Your task to perform on an android device: Search for Mexican restaurants on Maps Image 0: 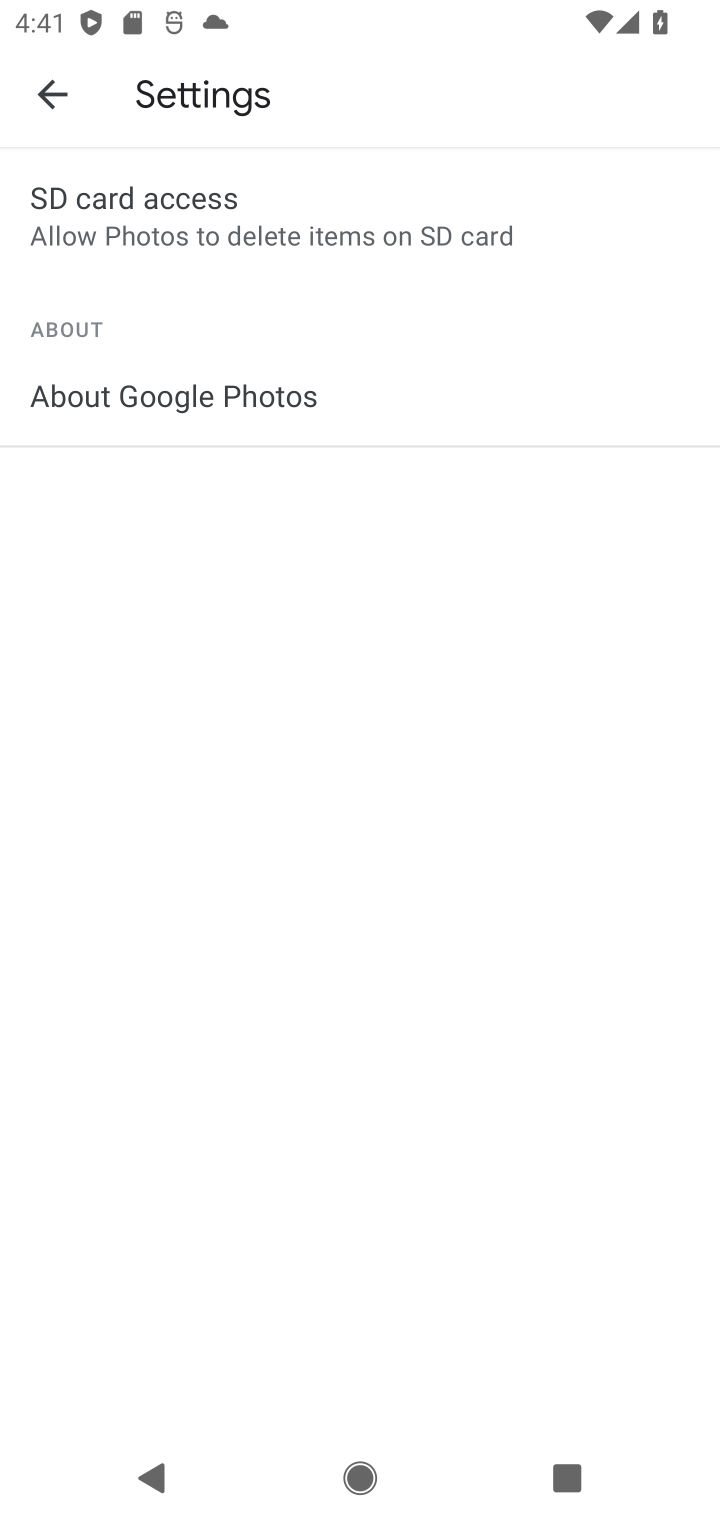
Step 0: press home button
Your task to perform on an android device: Search for Mexican restaurants on Maps Image 1: 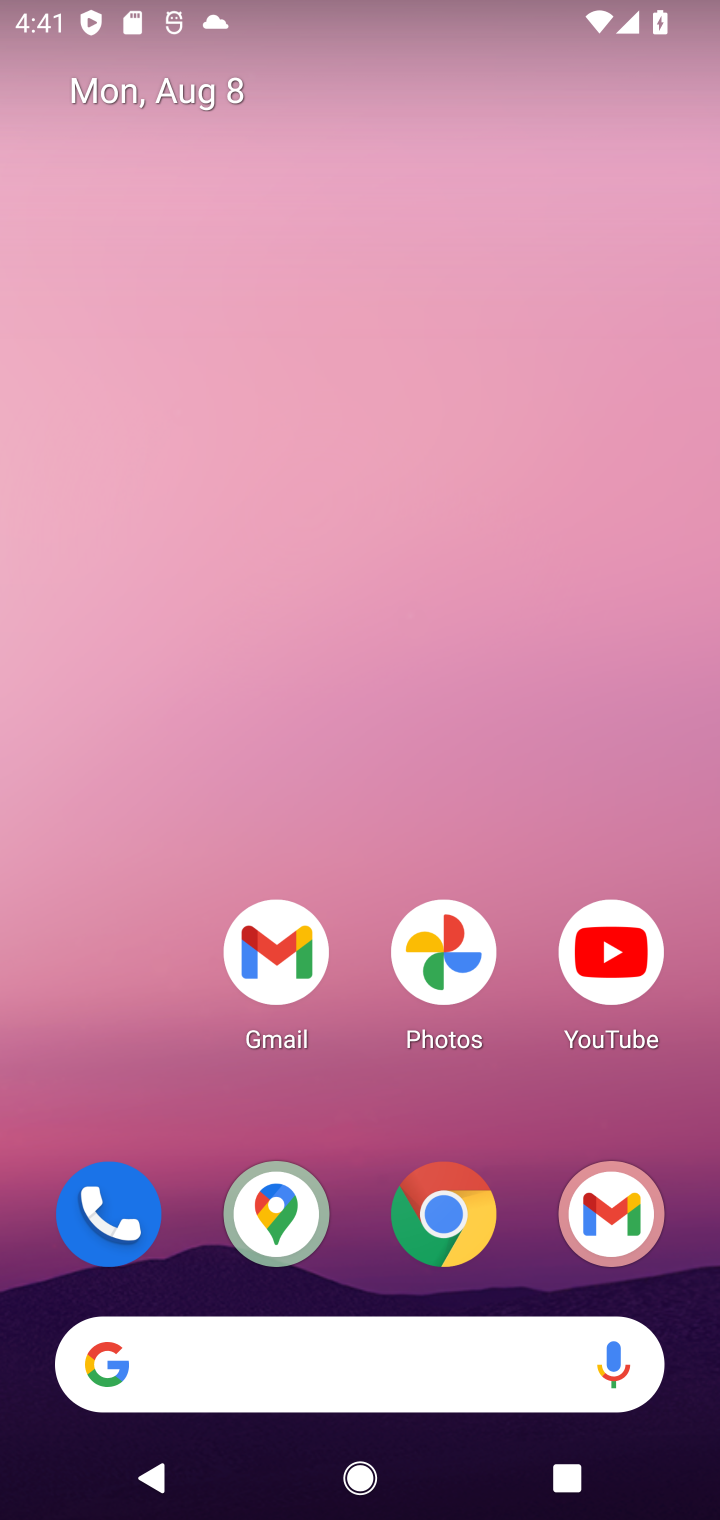
Step 1: drag from (359, 1257) to (359, 314)
Your task to perform on an android device: Search for Mexican restaurants on Maps Image 2: 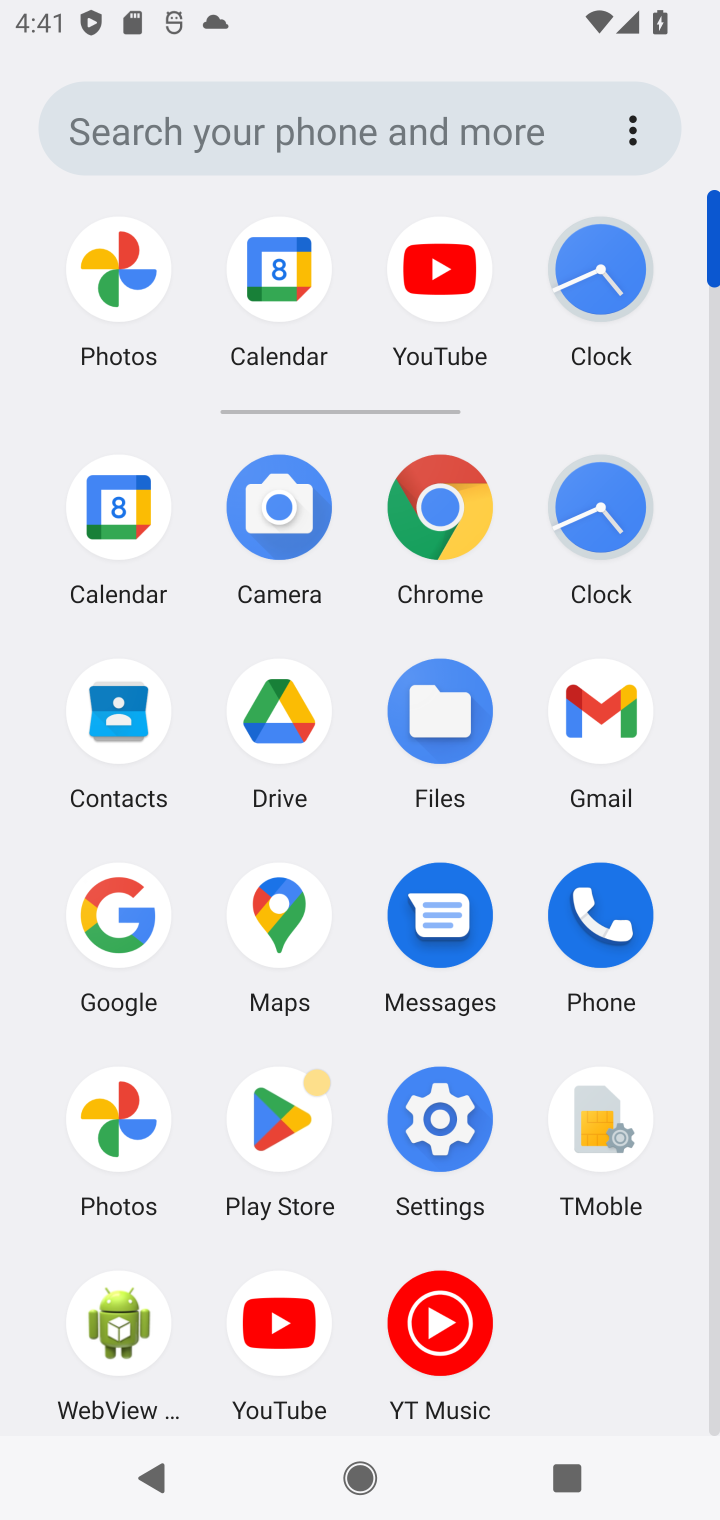
Step 2: click (274, 907)
Your task to perform on an android device: Search for Mexican restaurants on Maps Image 3: 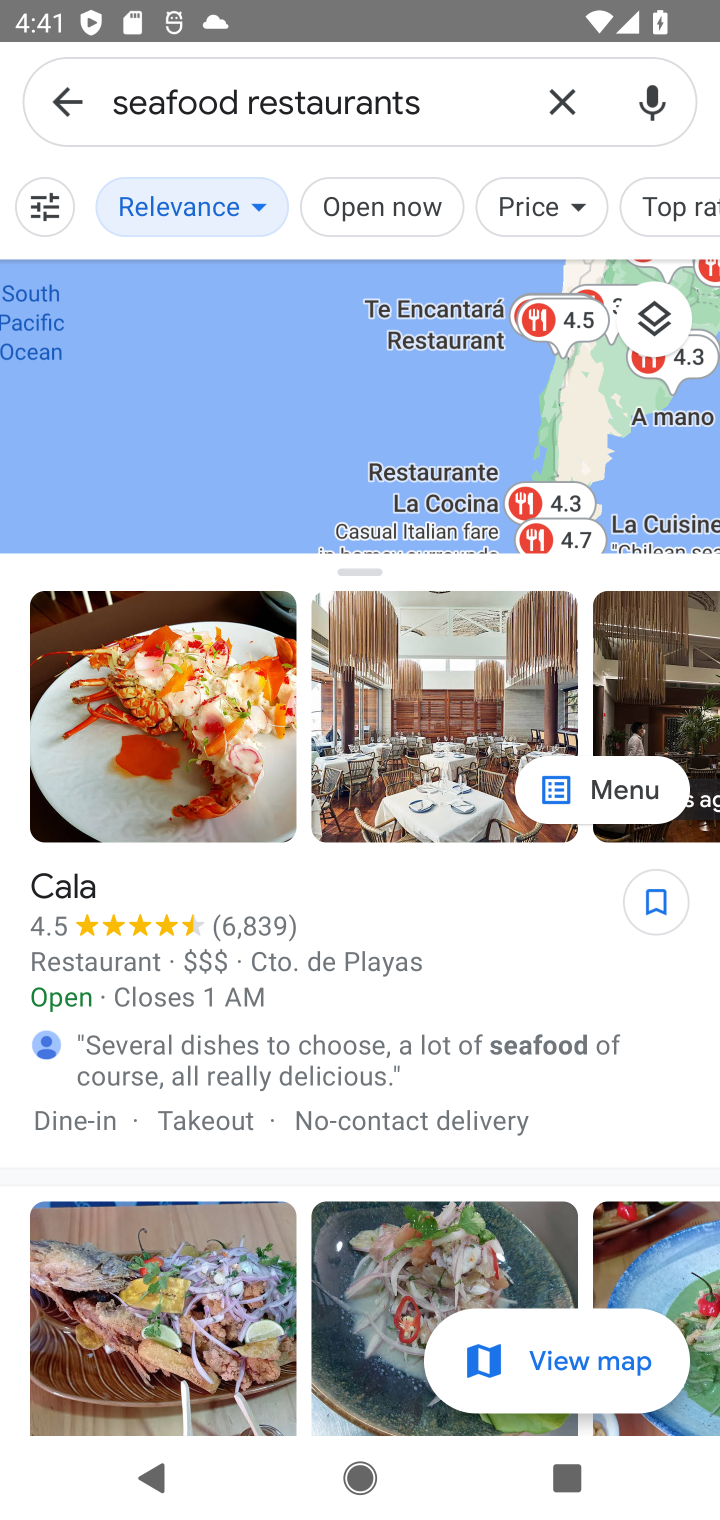
Step 3: click (561, 94)
Your task to perform on an android device: Search for Mexican restaurants on Maps Image 4: 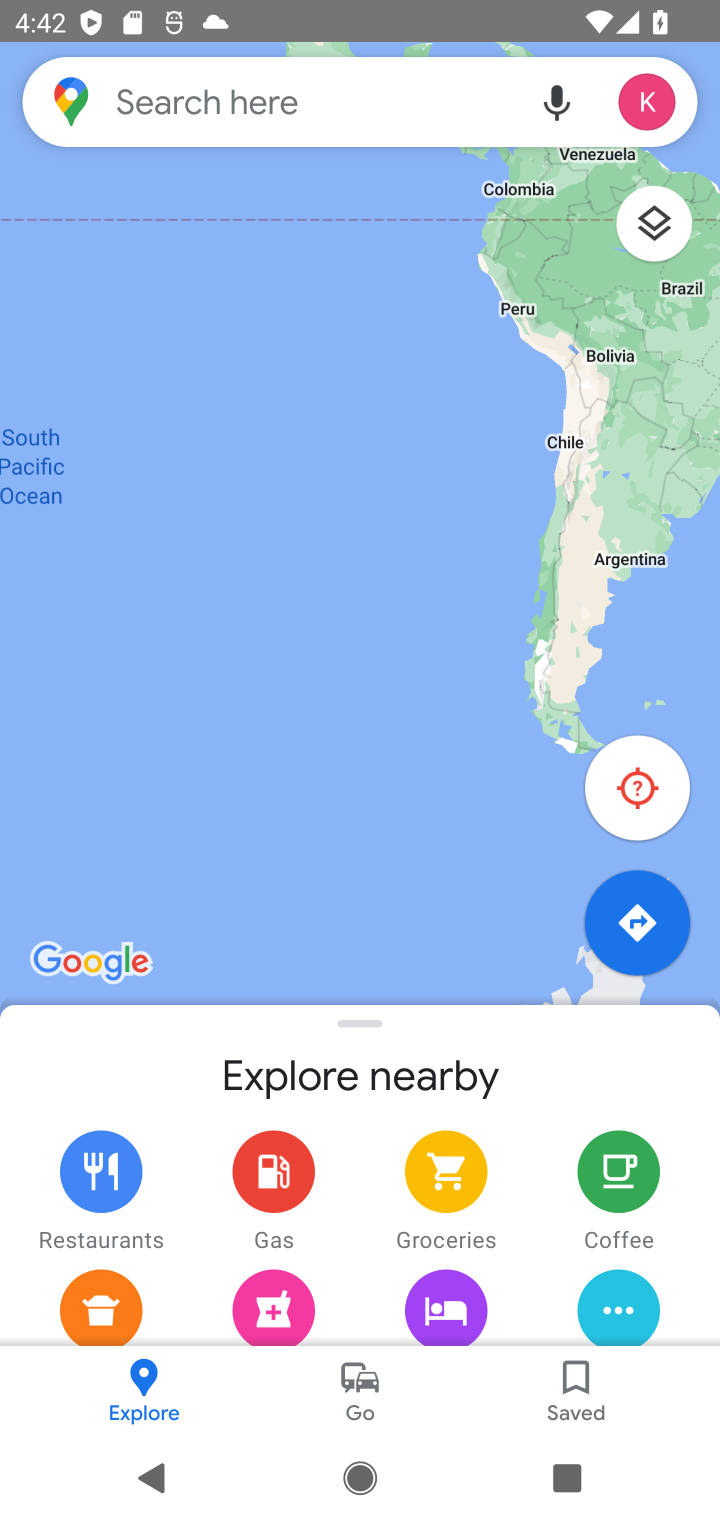
Step 4: click (288, 104)
Your task to perform on an android device: Search for Mexican restaurants on Maps Image 5: 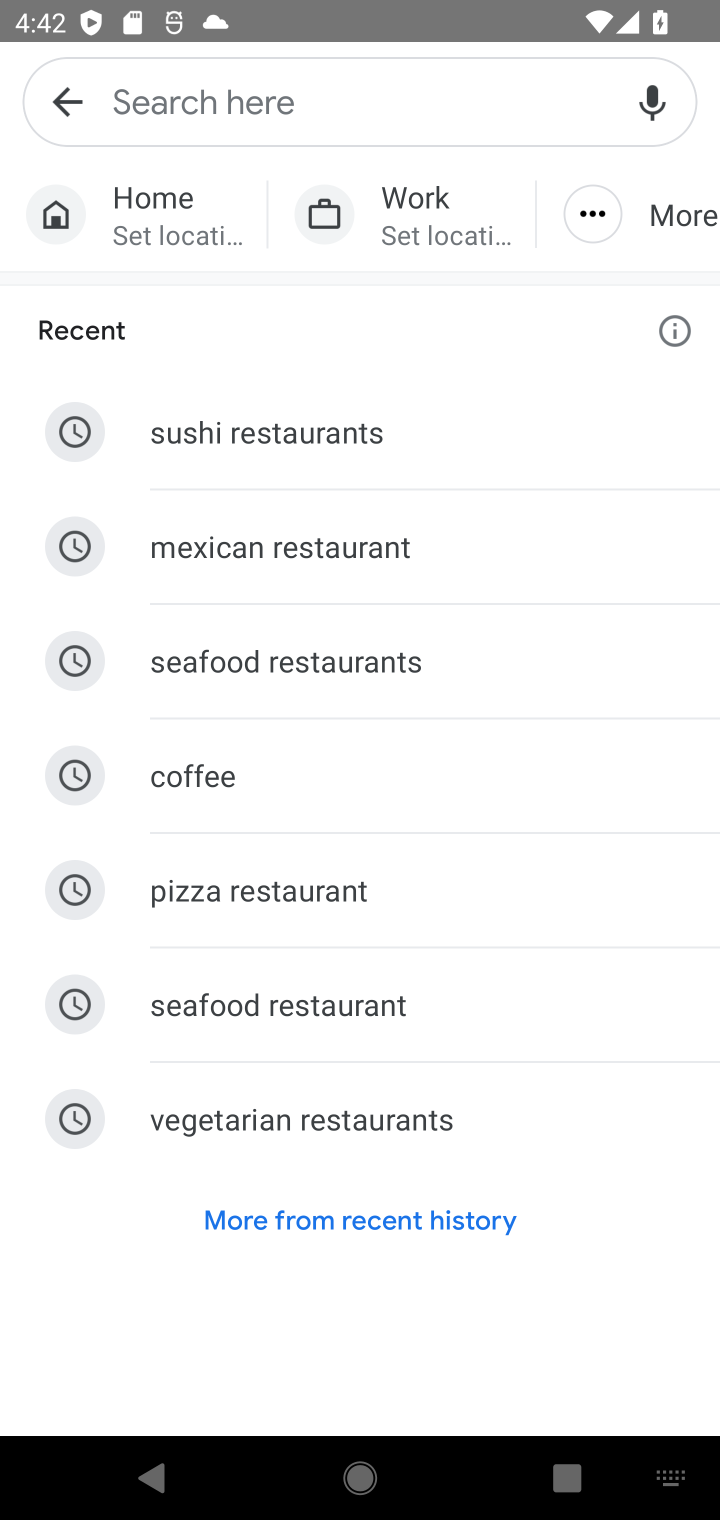
Step 5: type "Mexican restaurants"
Your task to perform on an android device: Search for Mexican restaurants on Maps Image 6: 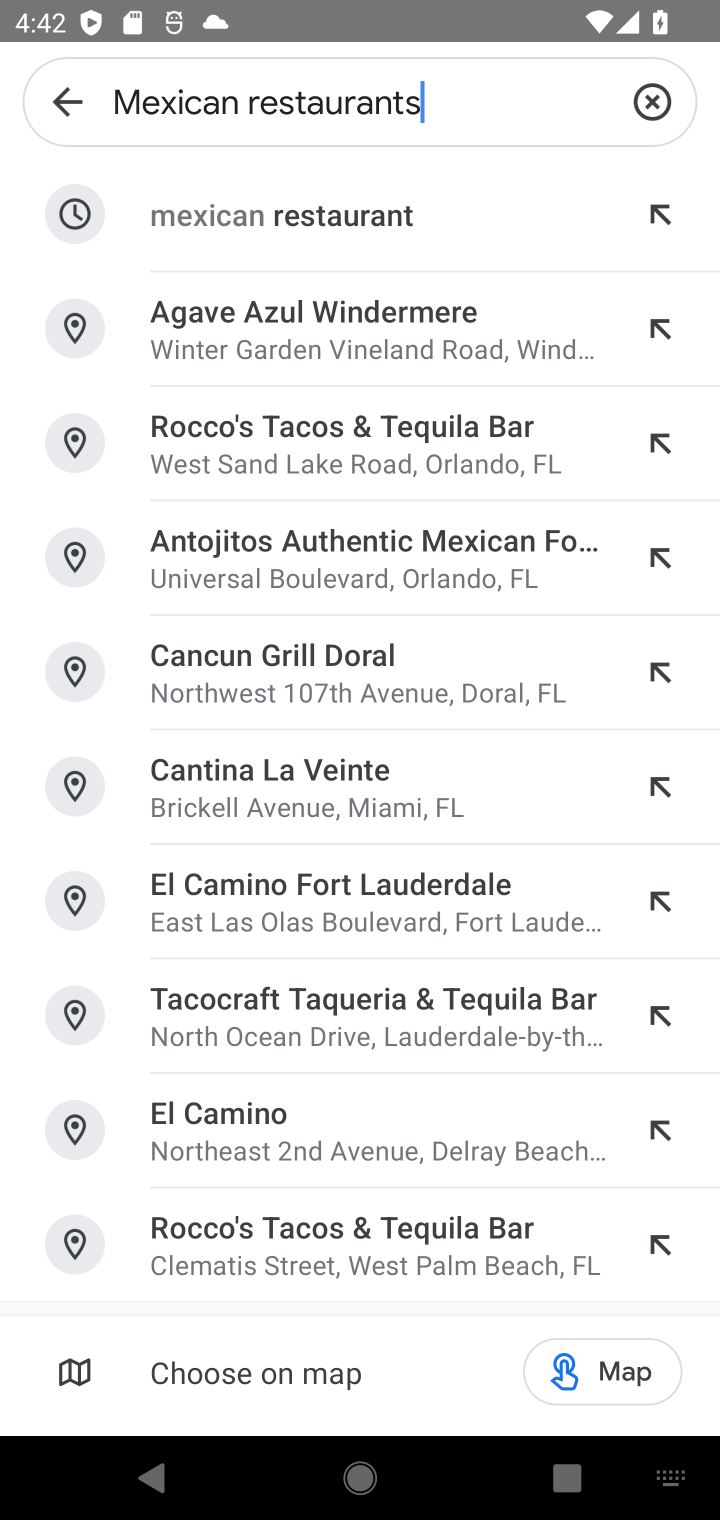
Step 6: click (326, 215)
Your task to perform on an android device: Search for Mexican restaurants on Maps Image 7: 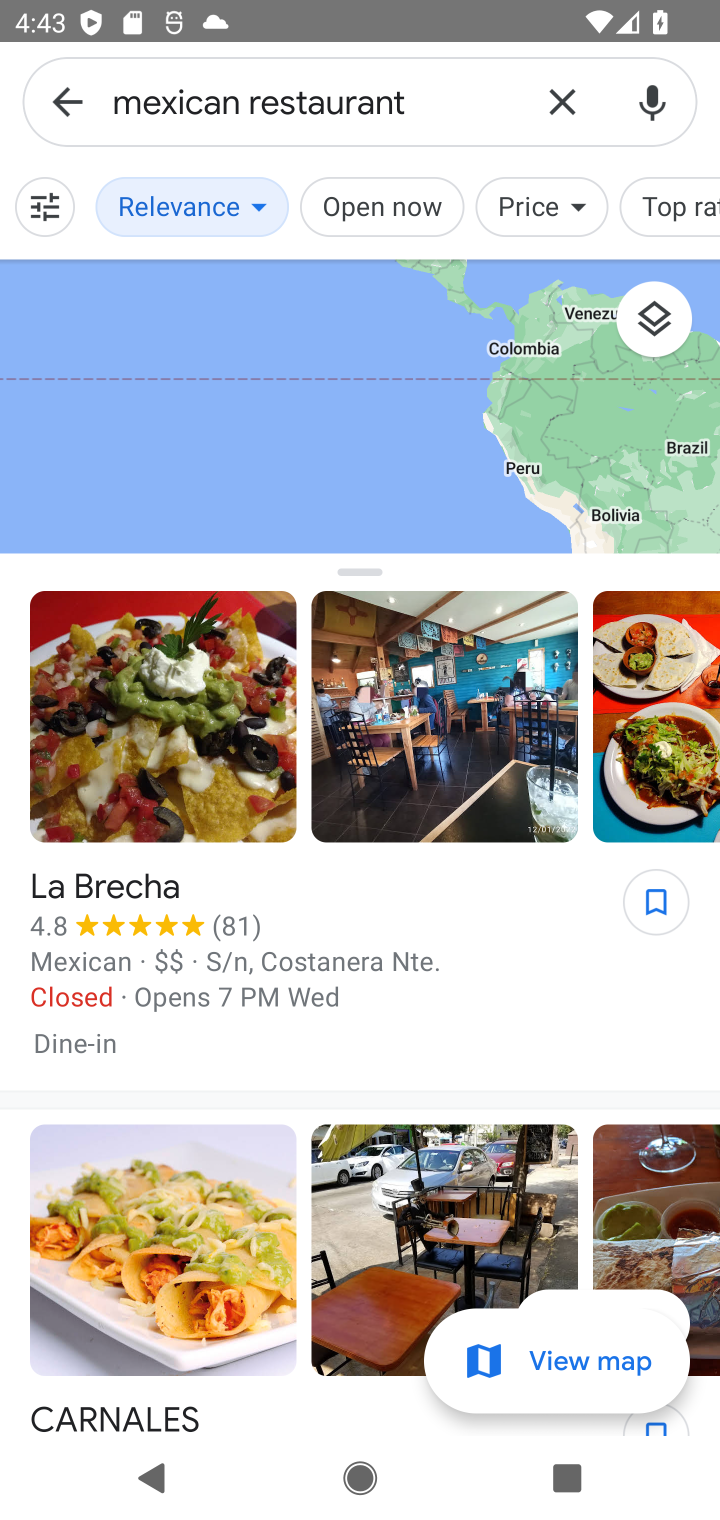
Step 7: task complete